Your task to perform on an android device: Open Google Chrome and click the shortcut for Amazon.com Image 0: 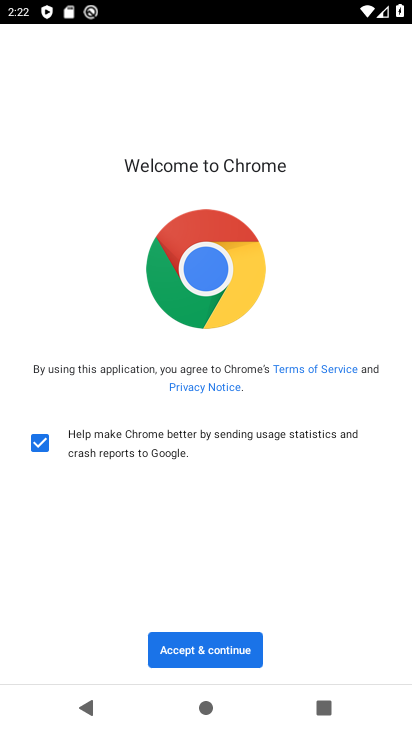
Step 0: press home button
Your task to perform on an android device: Open Google Chrome and click the shortcut for Amazon.com Image 1: 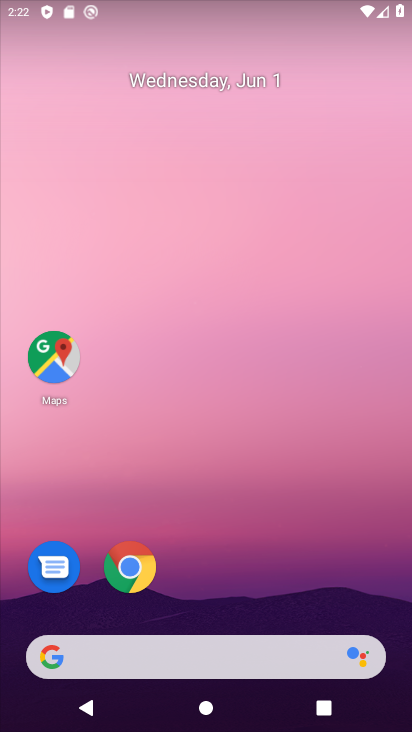
Step 1: click (119, 584)
Your task to perform on an android device: Open Google Chrome and click the shortcut for Amazon.com Image 2: 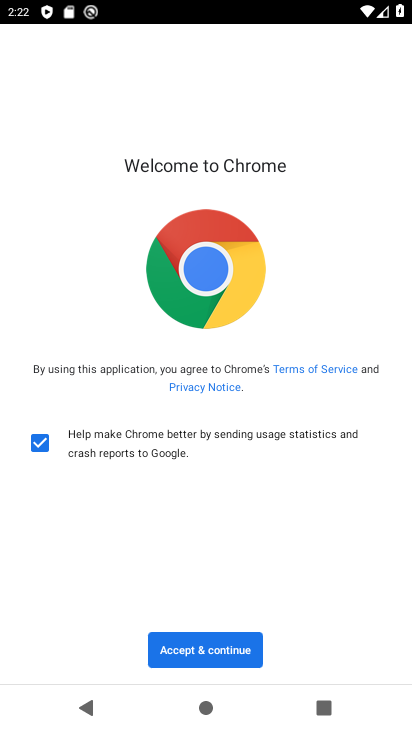
Step 2: click (238, 656)
Your task to perform on an android device: Open Google Chrome and click the shortcut for Amazon.com Image 3: 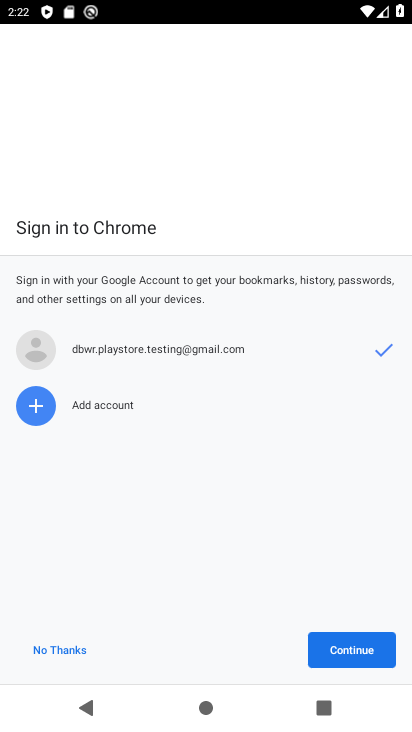
Step 3: click (371, 661)
Your task to perform on an android device: Open Google Chrome and click the shortcut for Amazon.com Image 4: 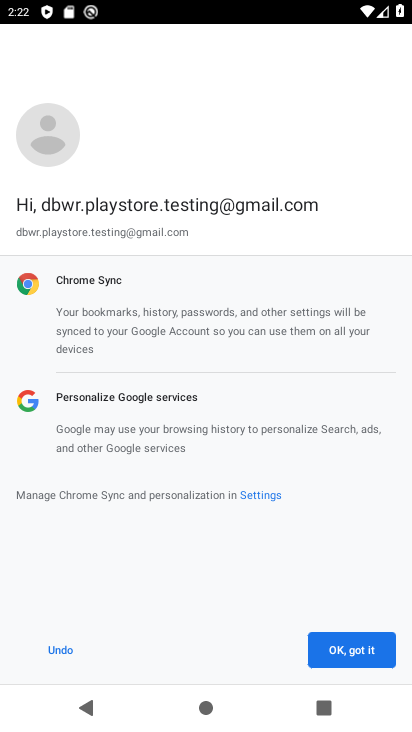
Step 4: click (371, 661)
Your task to perform on an android device: Open Google Chrome and click the shortcut for Amazon.com Image 5: 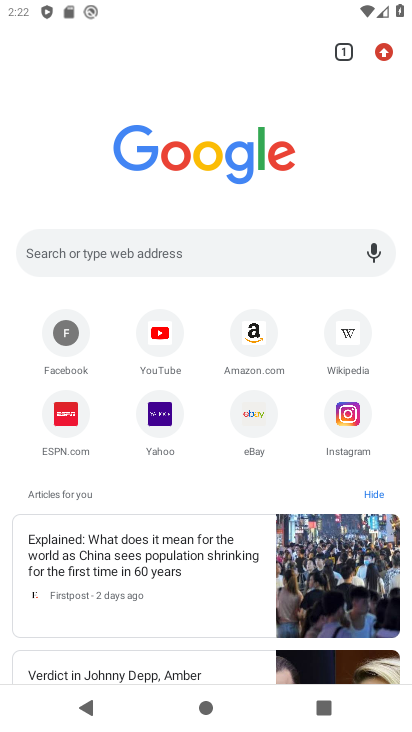
Step 5: click (252, 341)
Your task to perform on an android device: Open Google Chrome and click the shortcut for Amazon.com Image 6: 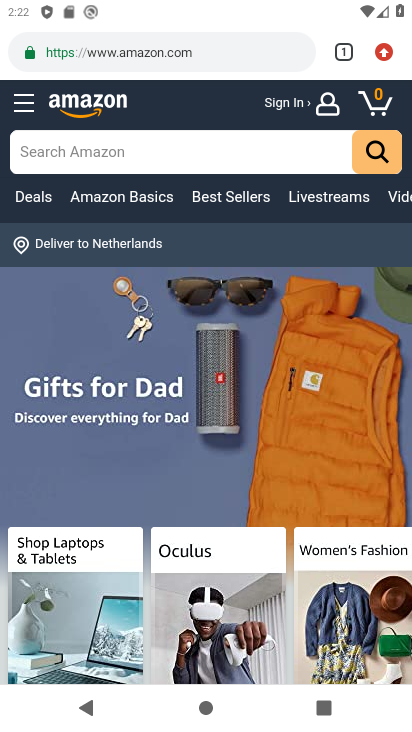
Step 6: task complete